Your task to perform on an android device: turn off priority inbox in the gmail app Image 0: 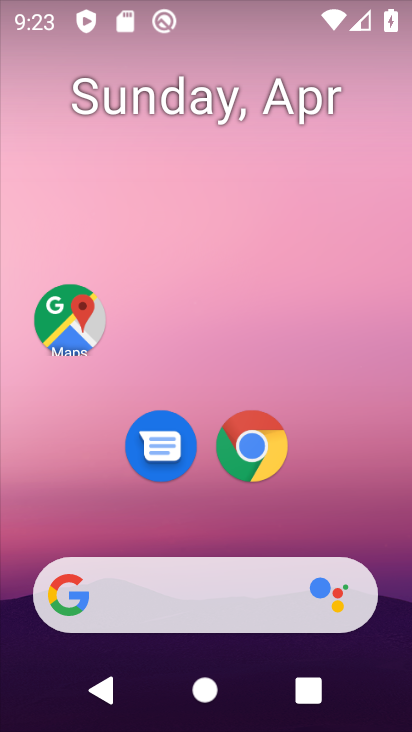
Step 0: drag from (219, 523) to (252, 265)
Your task to perform on an android device: turn off priority inbox in the gmail app Image 1: 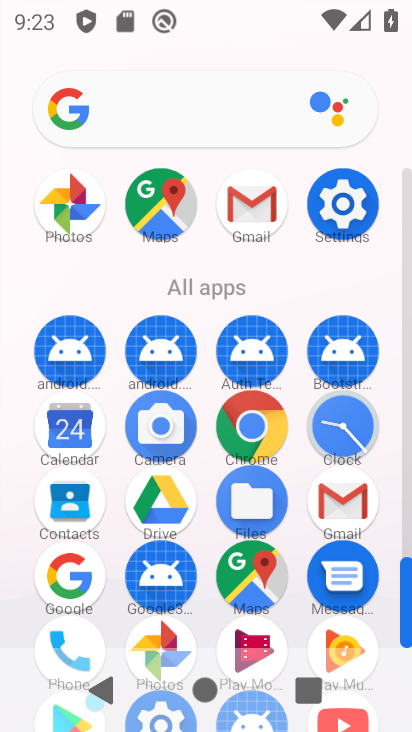
Step 1: click (343, 494)
Your task to perform on an android device: turn off priority inbox in the gmail app Image 2: 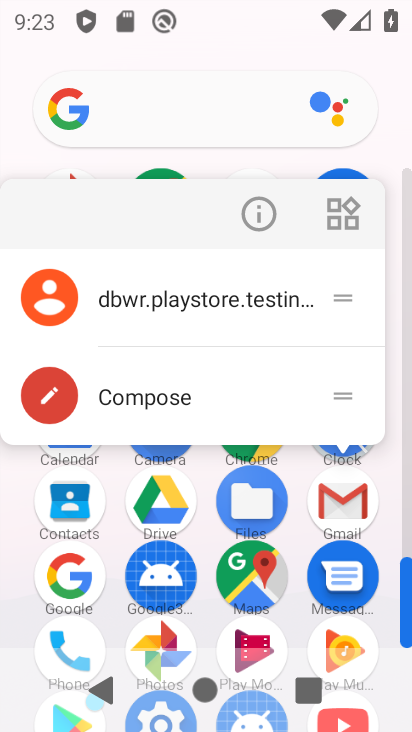
Step 2: click (262, 209)
Your task to perform on an android device: turn off priority inbox in the gmail app Image 3: 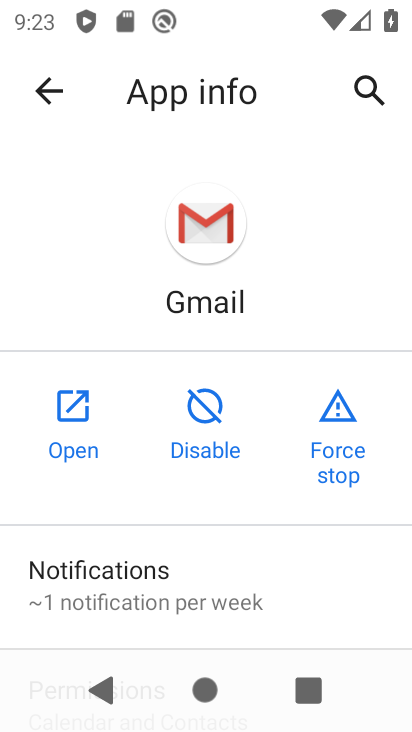
Step 3: click (60, 400)
Your task to perform on an android device: turn off priority inbox in the gmail app Image 4: 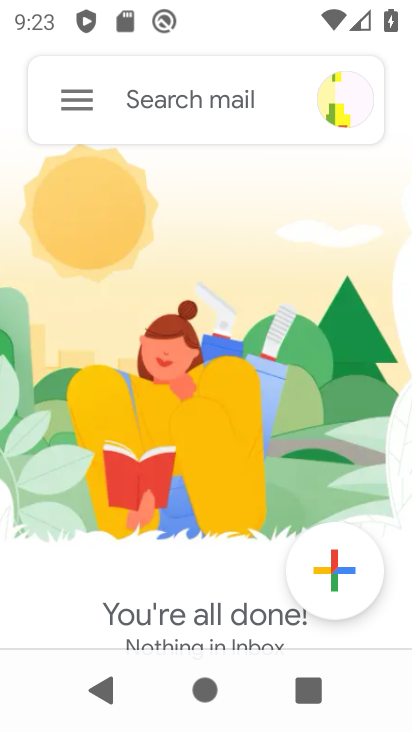
Step 4: drag from (198, 508) to (212, 450)
Your task to perform on an android device: turn off priority inbox in the gmail app Image 5: 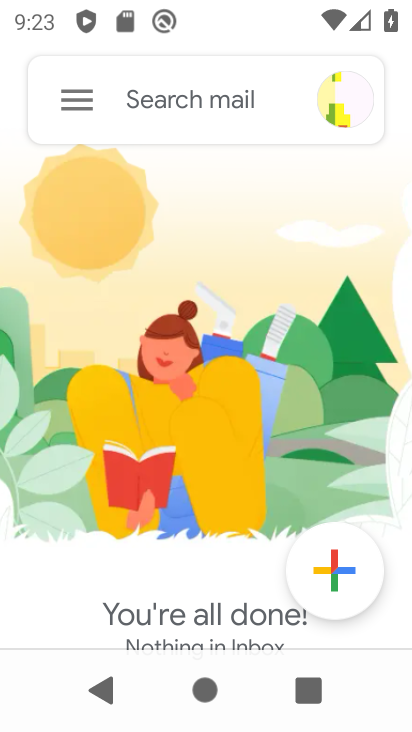
Step 5: drag from (146, 515) to (233, 77)
Your task to perform on an android device: turn off priority inbox in the gmail app Image 6: 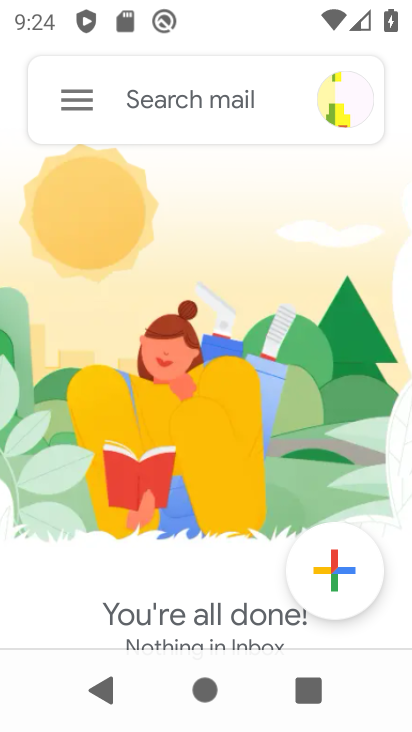
Step 6: click (92, 86)
Your task to perform on an android device: turn off priority inbox in the gmail app Image 7: 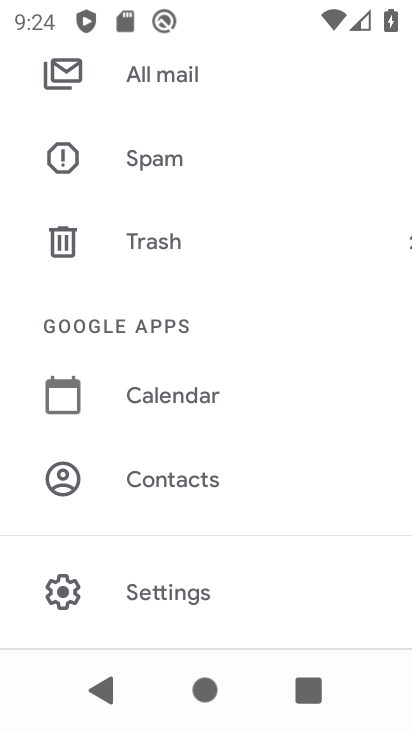
Step 7: drag from (192, 514) to (208, 58)
Your task to perform on an android device: turn off priority inbox in the gmail app Image 8: 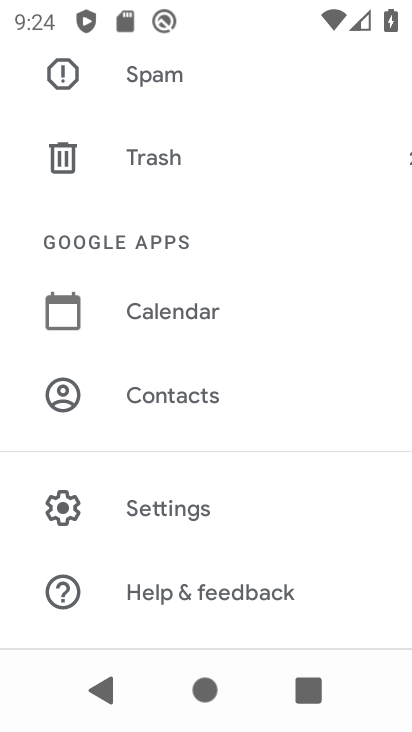
Step 8: click (193, 492)
Your task to perform on an android device: turn off priority inbox in the gmail app Image 9: 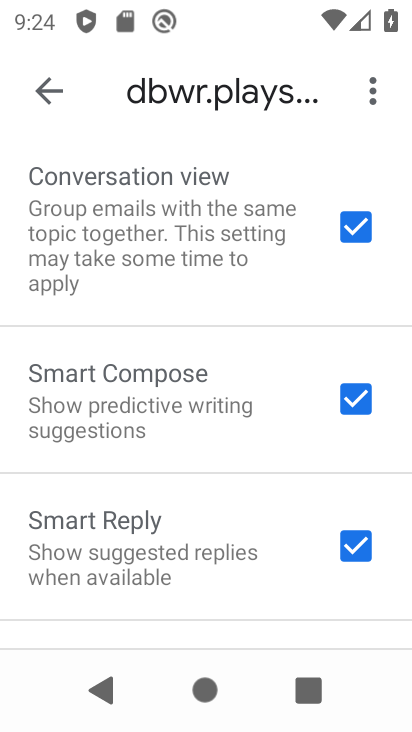
Step 9: drag from (225, 553) to (249, 220)
Your task to perform on an android device: turn off priority inbox in the gmail app Image 10: 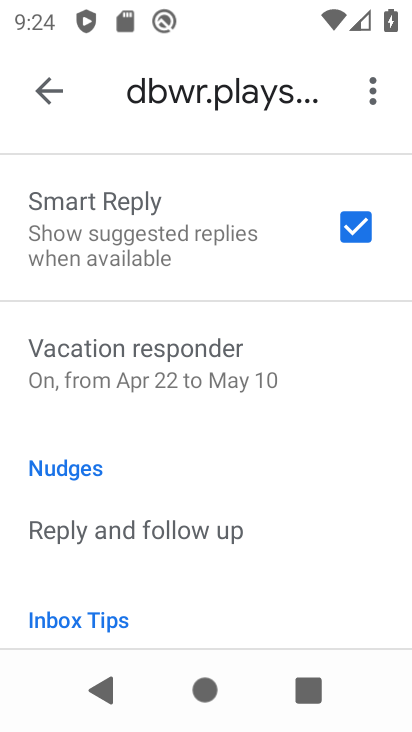
Step 10: drag from (138, 544) to (157, 344)
Your task to perform on an android device: turn off priority inbox in the gmail app Image 11: 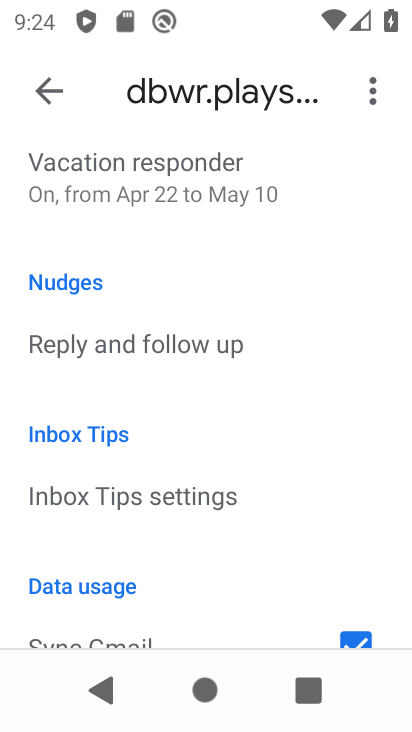
Step 11: drag from (145, 572) to (229, 212)
Your task to perform on an android device: turn off priority inbox in the gmail app Image 12: 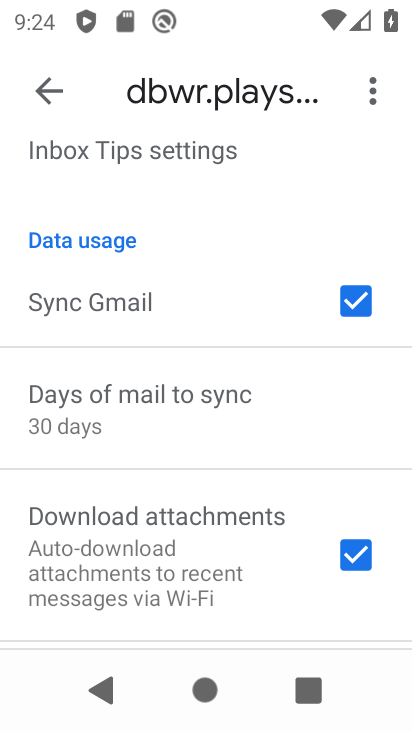
Step 12: drag from (149, 589) to (224, 234)
Your task to perform on an android device: turn off priority inbox in the gmail app Image 13: 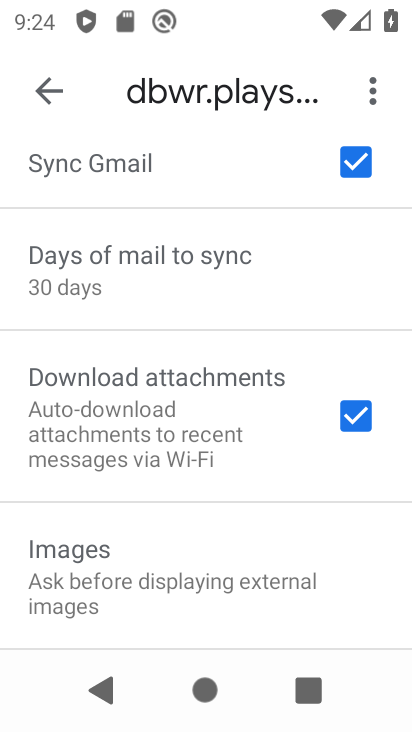
Step 13: drag from (229, 240) to (221, 729)
Your task to perform on an android device: turn off priority inbox in the gmail app Image 14: 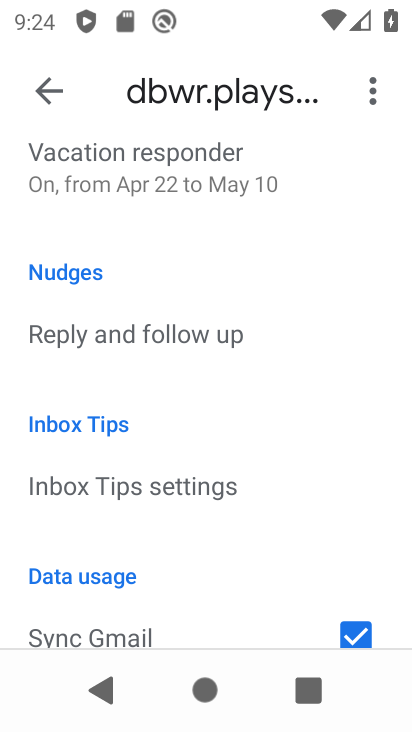
Step 14: drag from (217, 267) to (314, 723)
Your task to perform on an android device: turn off priority inbox in the gmail app Image 15: 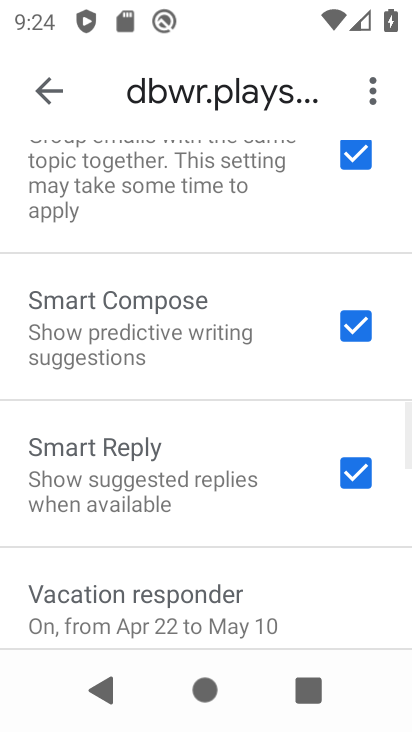
Step 15: drag from (168, 201) to (345, 711)
Your task to perform on an android device: turn off priority inbox in the gmail app Image 16: 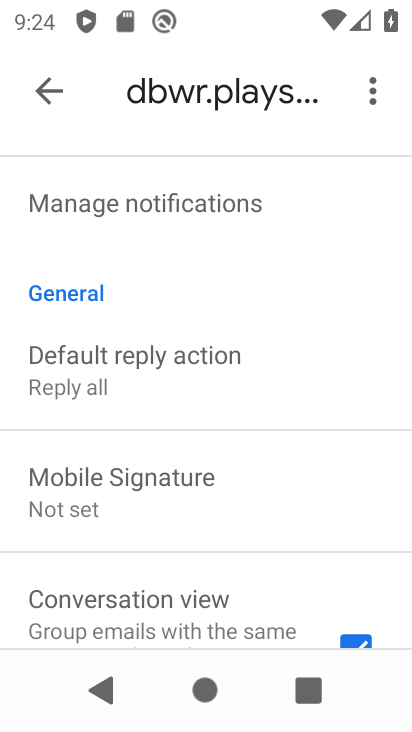
Step 16: drag from (93, 189) to (357, 728)
Your task to perform on an android device: turn off priority inbox in the gmail app Image 17: 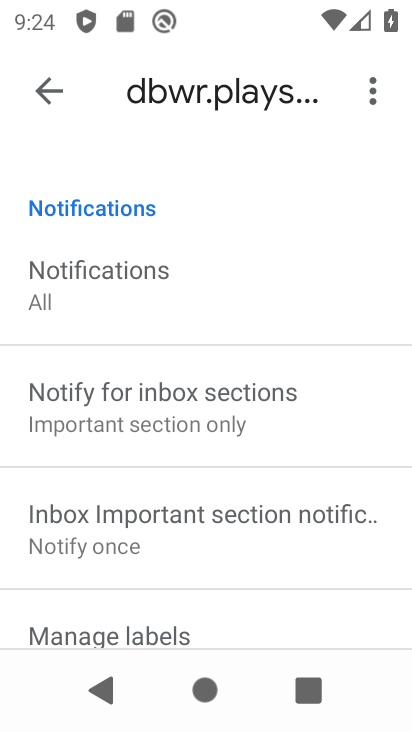
Step 17: drag from (142, 273) to (298, 730)
Your task to perform on an android device: turn off priority inbox in the gmail app Image 18: 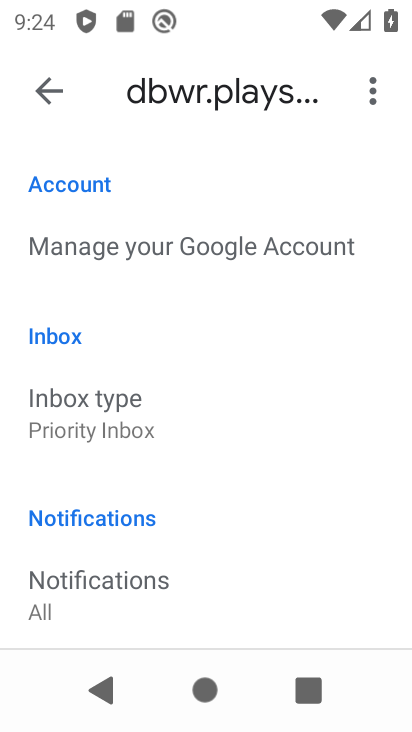
Step 18: click (105, 427)
Your task to perform on an android device: turn off priority inbox in the gmail app Image 19: 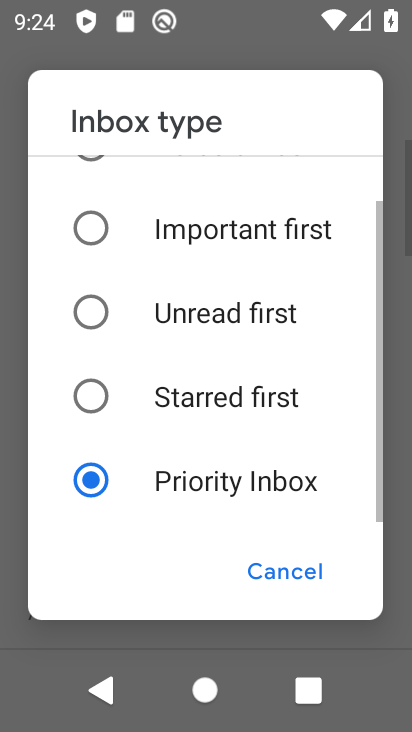
Step 19: drag from (198, 239) to (234, 703)
Your task to perform on an android device: turn off priority inbox in the gmail app Image 20: 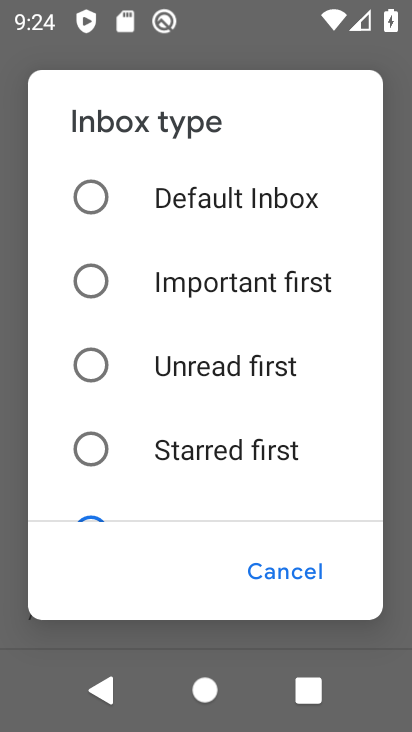
Step 20: click (219, 186)
Your task to perform on an android device: turn off priority inbox in the gmail app Image 21: 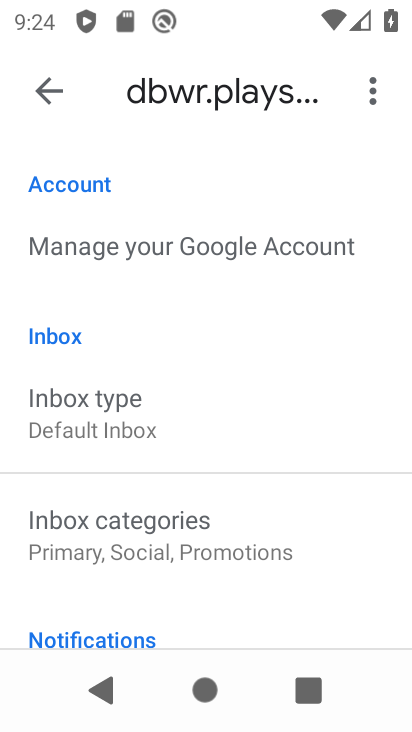
Step 21: task complete